Your task to perform on an android device: Open network settings Image 0: 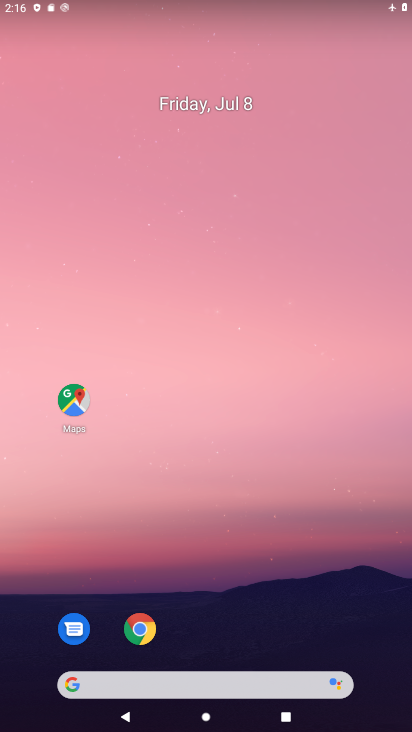
Step 0: drag from (28, 711) to (283, 134)
Your task to perform on an android device: Open network settings Image 1: 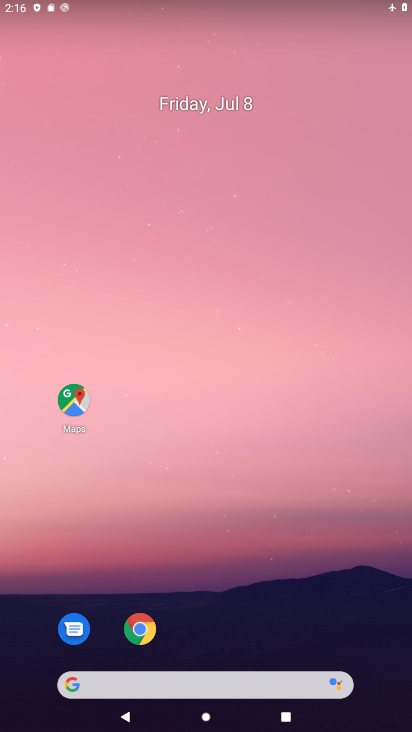
Step 1: drag from (34, 697) to (222, 83)
Your task to perform on an android device: Open network settings Image 2: 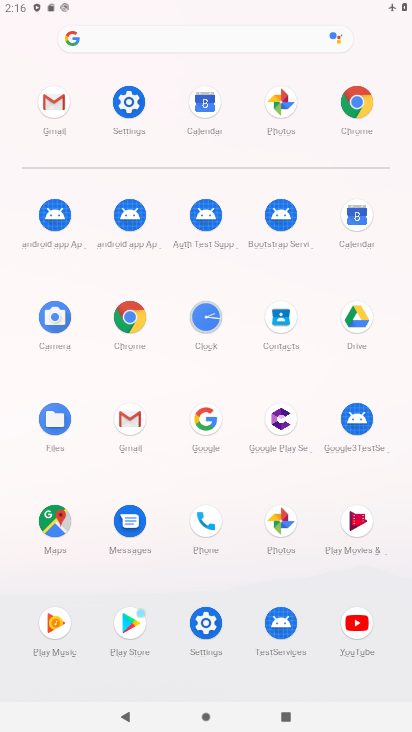
Step 2: click (217, 628)
Your task to perform on an android device: Open network settings Image 3: 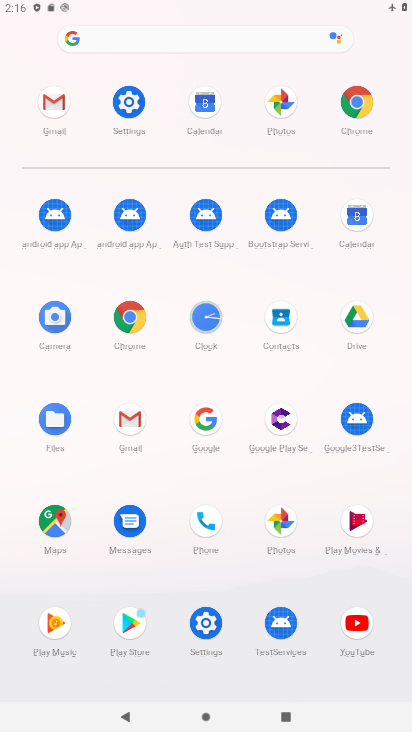
Step 3: click (217, 628)
Your task to perform on an android device: Open network settings Image 4: 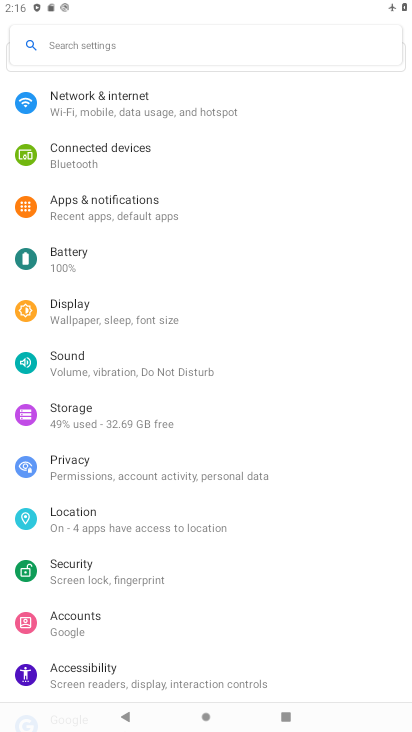
Step 4: click (114, 110)
Your task to perform on an android device: Open network settings Image 5: 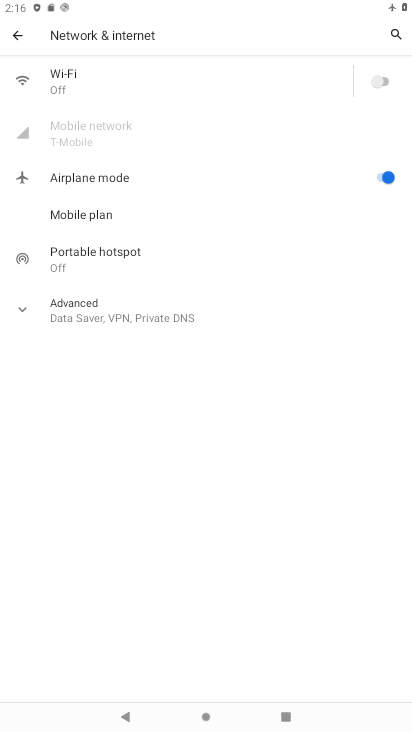
Step 5: task complete